Your task to perform on an android device: Add "amazon basics triple a" to the cart on amazon Image 0: 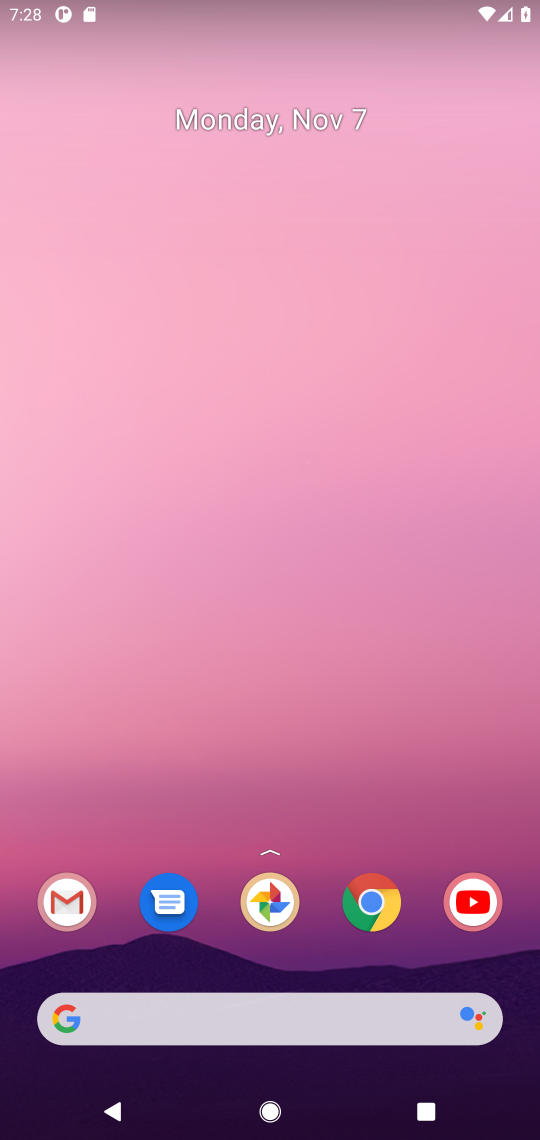
Step 0: click (378, 914)
Your task to perform on an android device: Add "amazon basics triple a" to the cart on amazon Image 1: 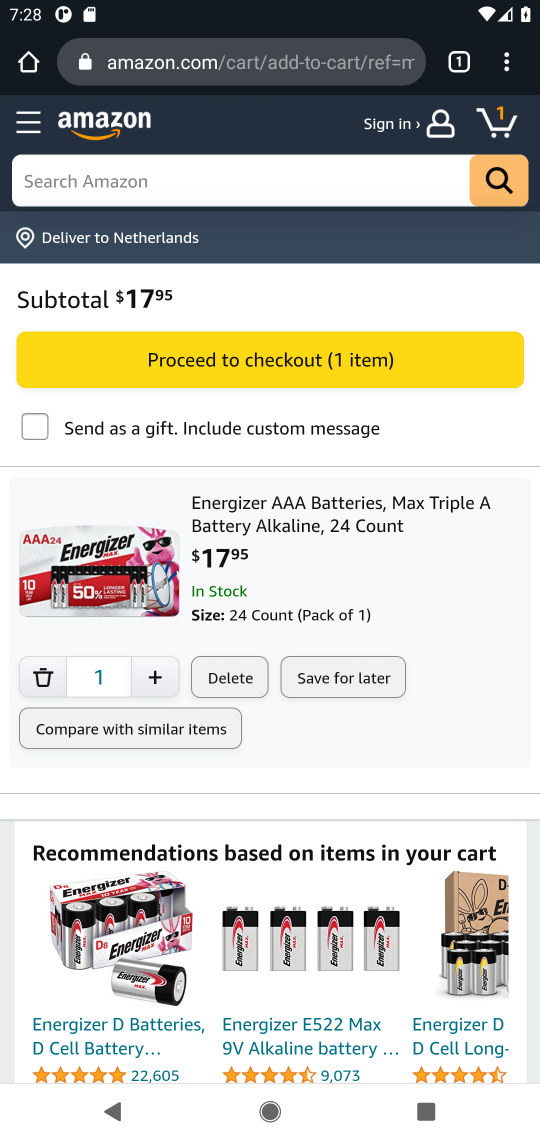
Step 1: click (167, 180)
Your task to perform on an android device: Add "amazon basics triple a" to the cart on amazon Image 2: 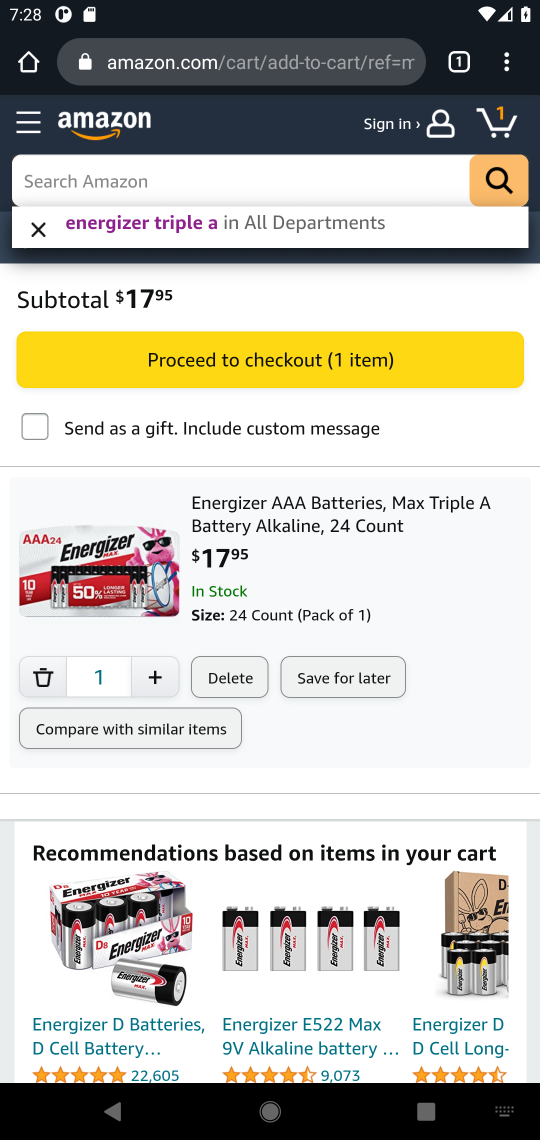
Step 2: type "amazon basics triple a"
Your task to perform on an android device: Add "amazon basics triple a" to the cart on amazon Image 3: 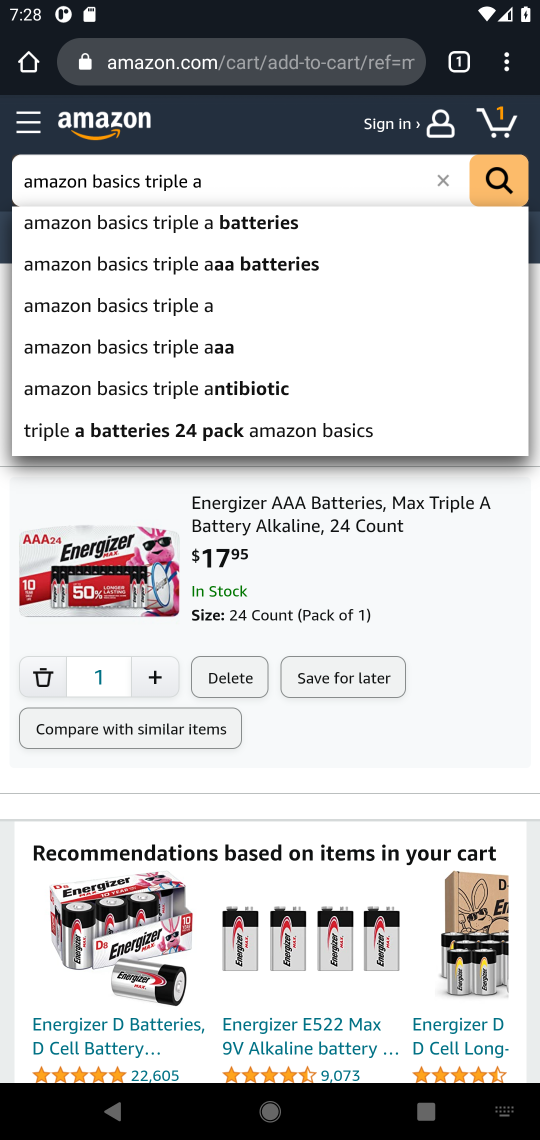
Step 3: click (132, 312)
Your task to perform on an android device: Add "amazon basics triple a" to the cart on amazon Image 4: 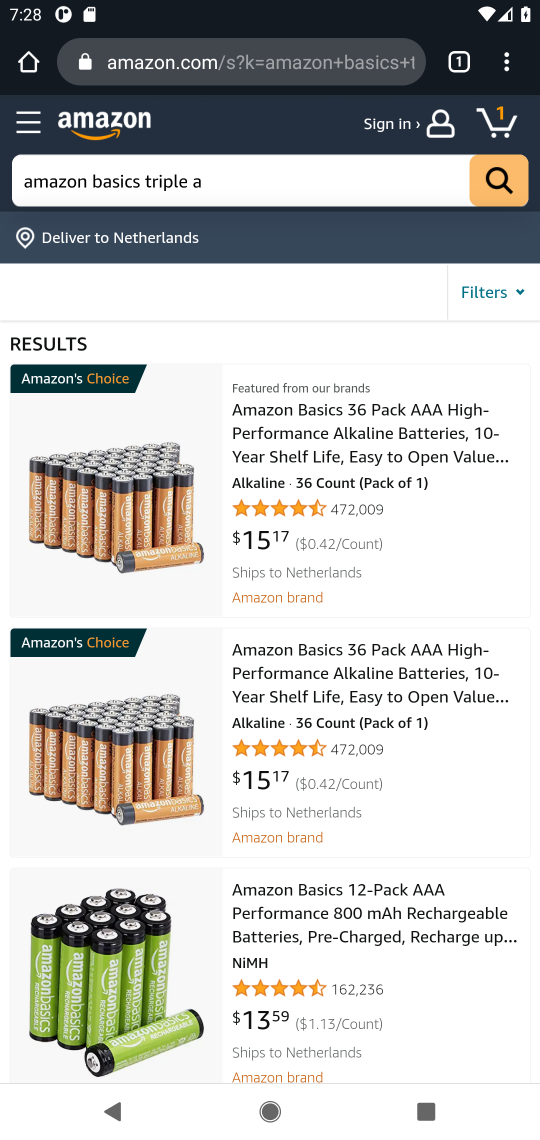
Step 4: click (141, 503)
Your task to perform on an android device: Add "amazon basics triple a" to the cart on amazon Image 5: 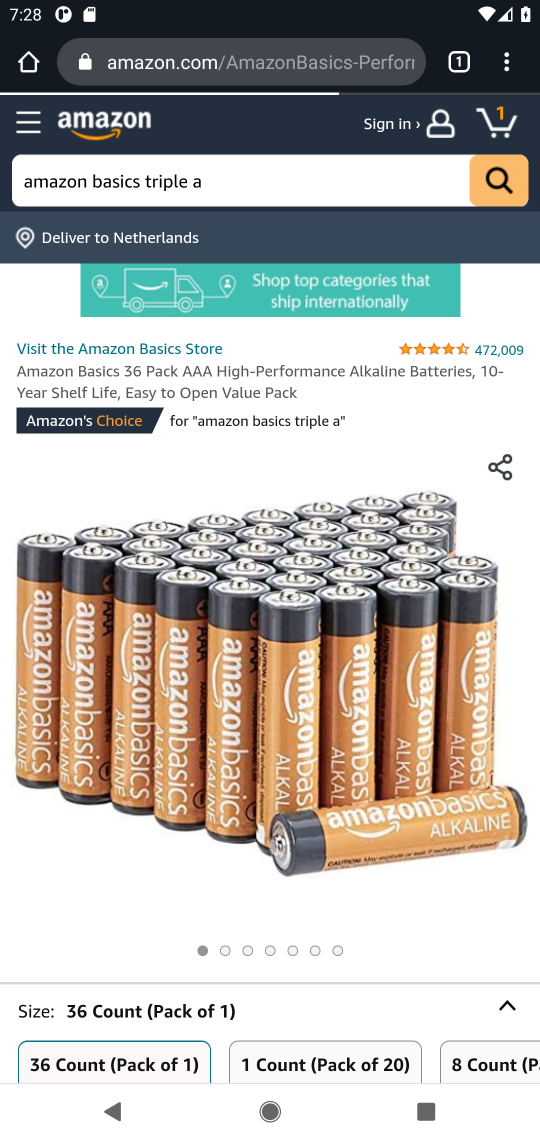
Step 5: drag from (247, 772) to (229, 376)
Your task to perform on an android device: Add "amazon basics triple a" to the cart on amazon Image 6: 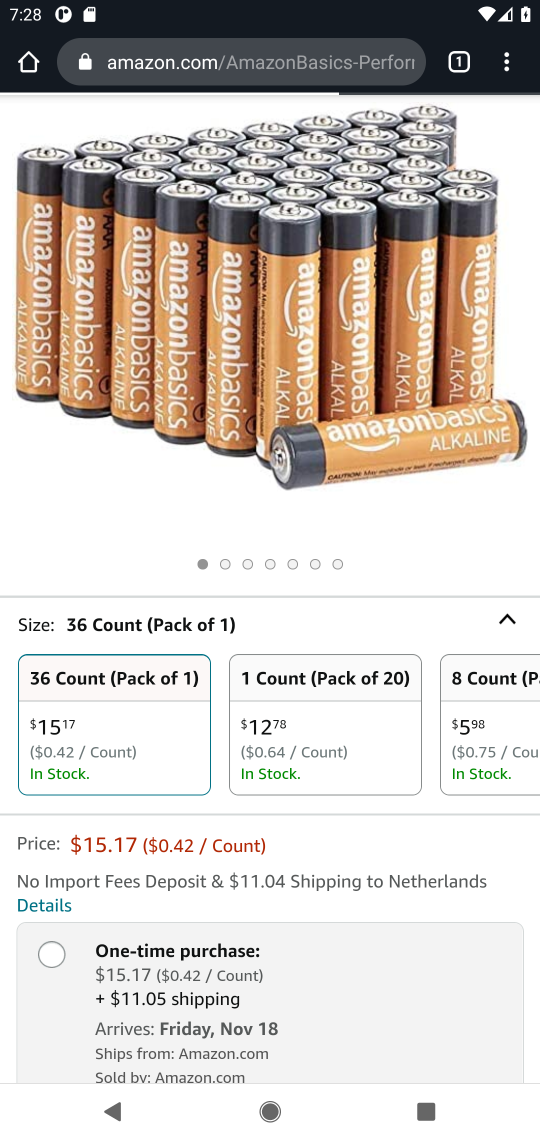
Step 6: drag from (257, 832) to (230, 486)
Your task to perform on an android device: Add "amazon basics triple a" to the cart on amazon Image 7: 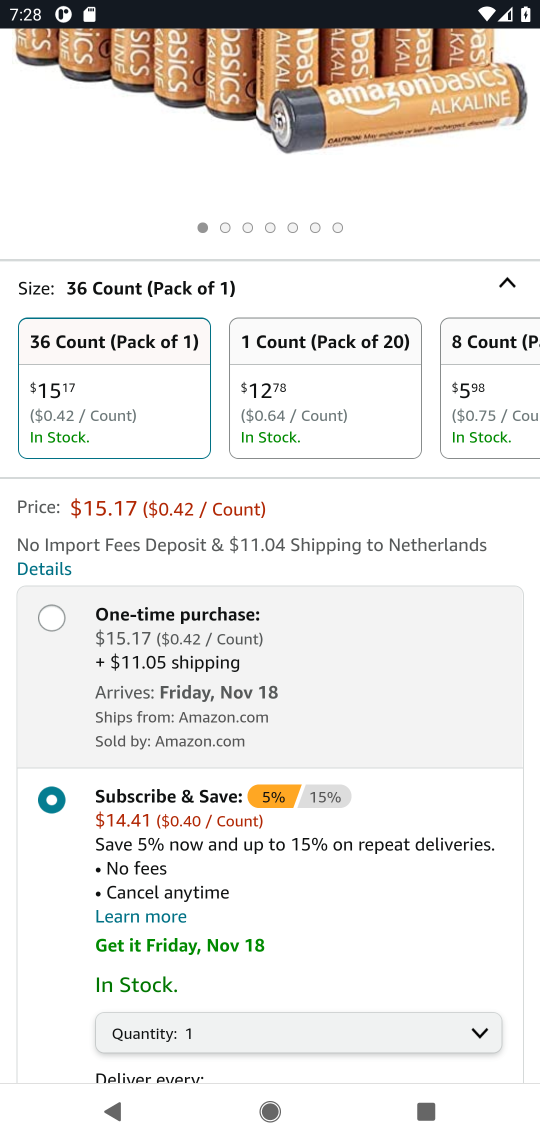
Step 7: click (57, 619)
Your task to perform on an android device: Add "amazon basics triple a" to the cart on amazon Image 8: 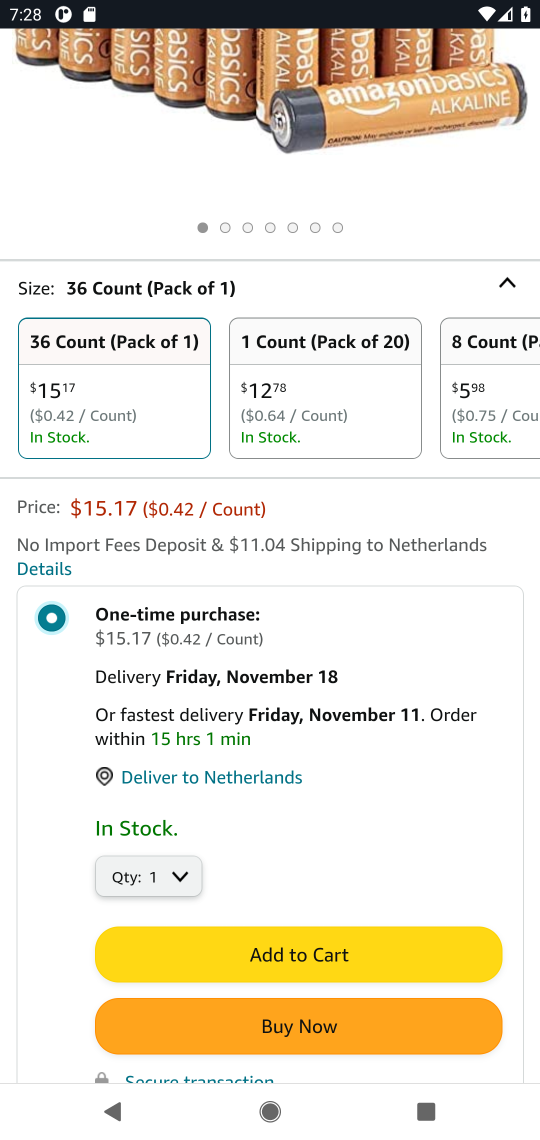
Step 8: click (313, 980)
Your task to perform on an android device: Add "amazon basics triple a" to the cart on amazon Image 9: 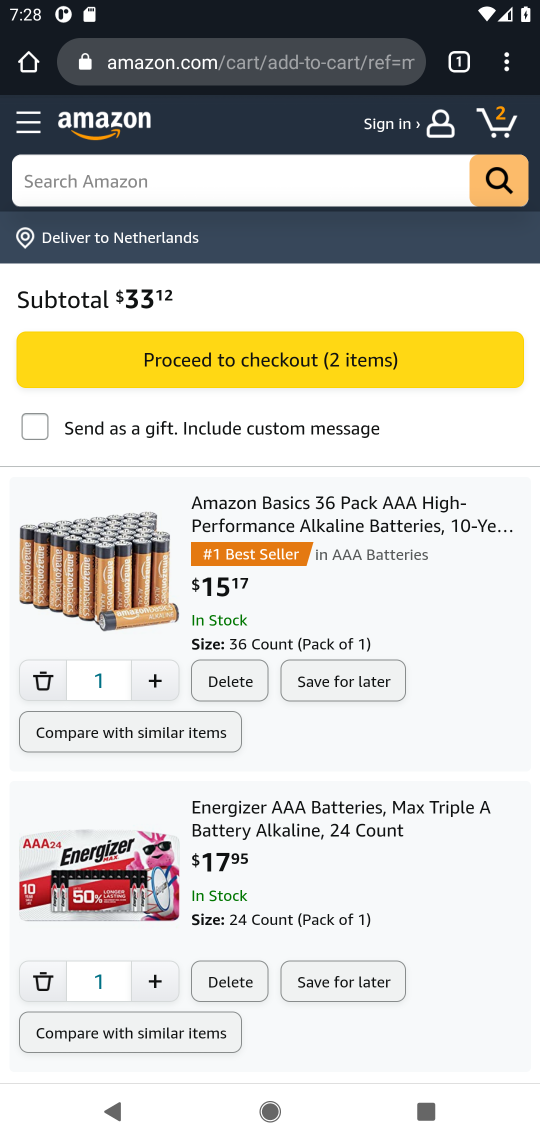
Step 9: task complete